Your task to perform on an android device: turn pop-ups off in chrome Image 0: 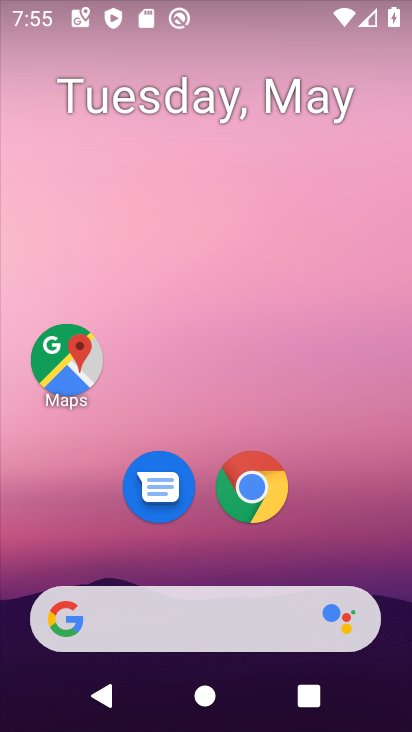
Step 0: drag from (371, 569) to (390, 271)
Your task to perform on an android device: turn pop-ups off in chrome Image 1: 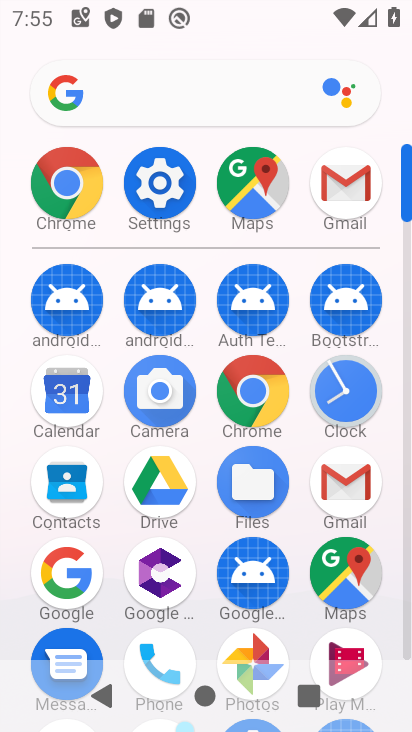
Step 1: click (270, 400)
Your task to perform on an android device: turn pop-ups off in chrome Image 2: 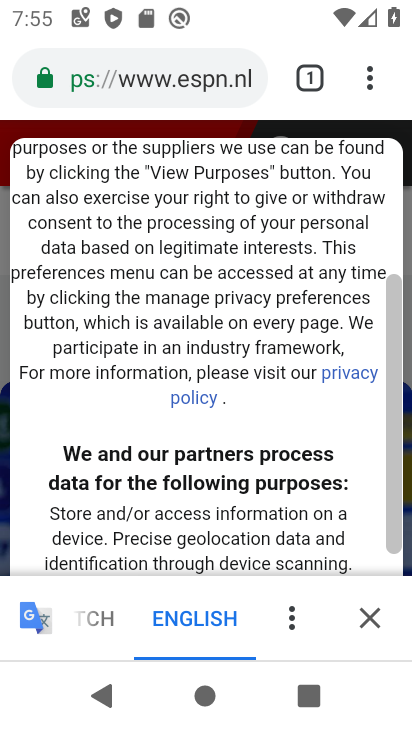
Step 2: click (370, 82)
Your task to perform on an android device: turn pop-ups off in chrome Image 3: 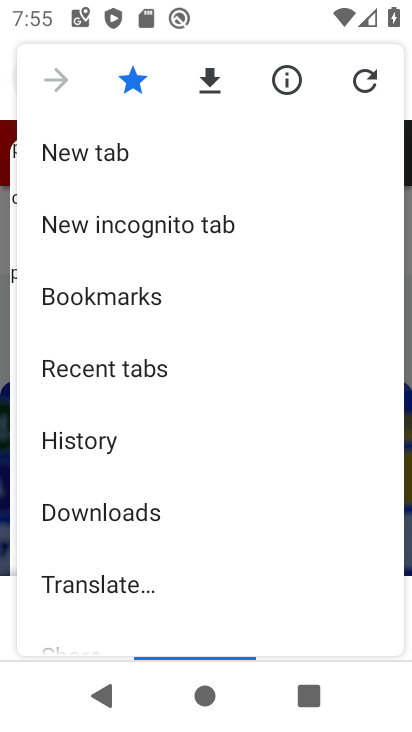
Step 3: drag from (273, 530) to (281, 450)
Your task to perform on an android device: turn pop-ups off in chrome Image 4: 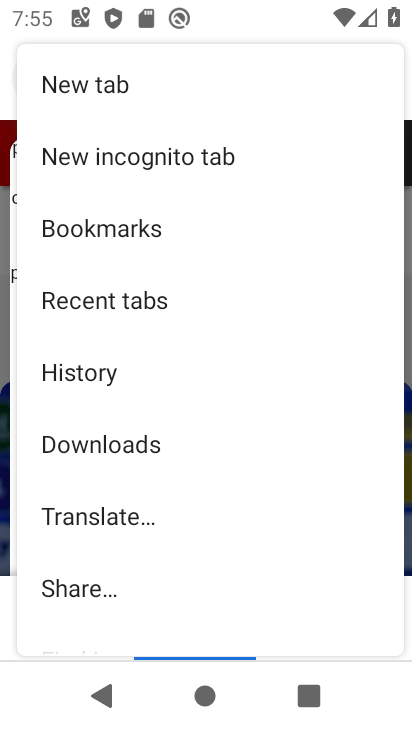
Step 4: drag from (280, 528) to (285, 467)
Your task to perform on an android device: turn pop-ups off in chrome Image 5: 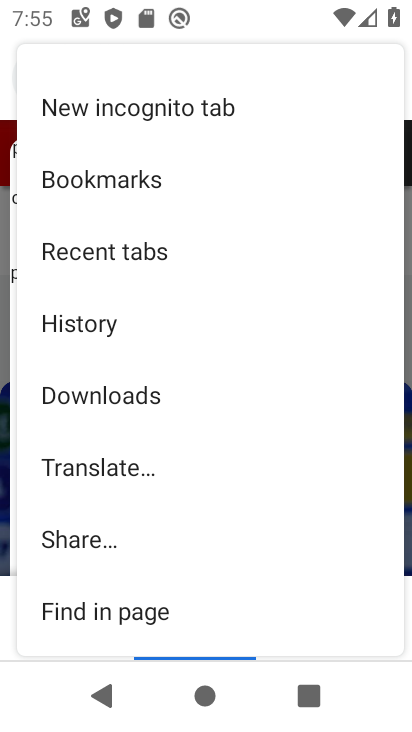
Step 5: drag from (281, 562) to (303, 464)
Your task to perform on an android device: turn pop-ups off in chrome Image 6: 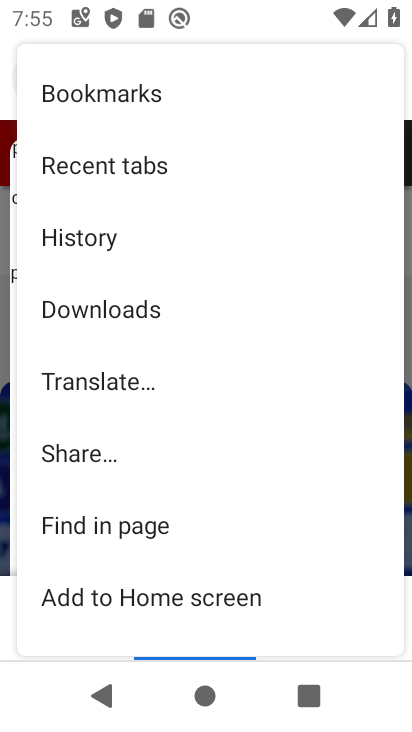
Step 6: drag from (328, 589) to (340, 475)
Your task to perform on an android device: turn pop-ups off in chrome Image 7: 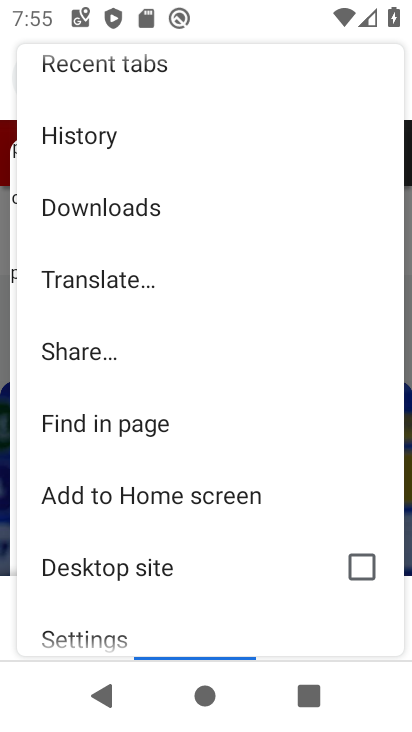
Step 7: drag from (276, 570) to (290, 379)
Your task to perform on an android device: turn pop-ups off in chrome Image 8: 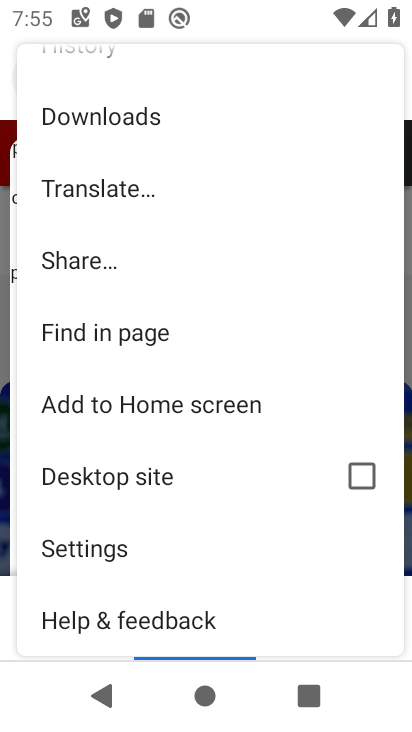
Step 8: click (170, 551)
Your task to perform on an android device: turn pop-ups off in chrome Image 9: 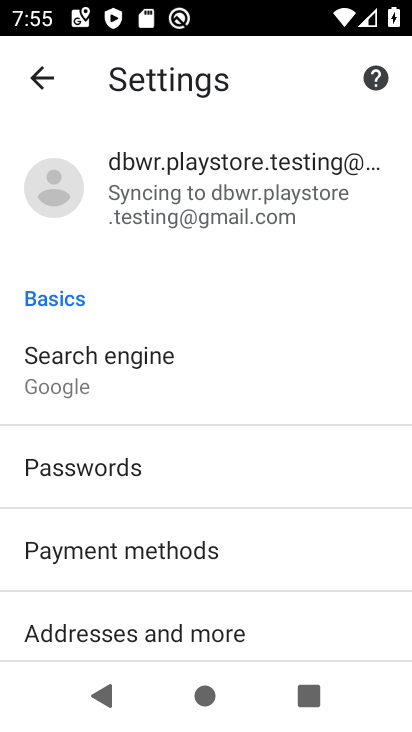
Step 9: drag from (326, 498) to (328, 417)
Your task to perform on an android device: turn pop-ups off in chrome Image 10: 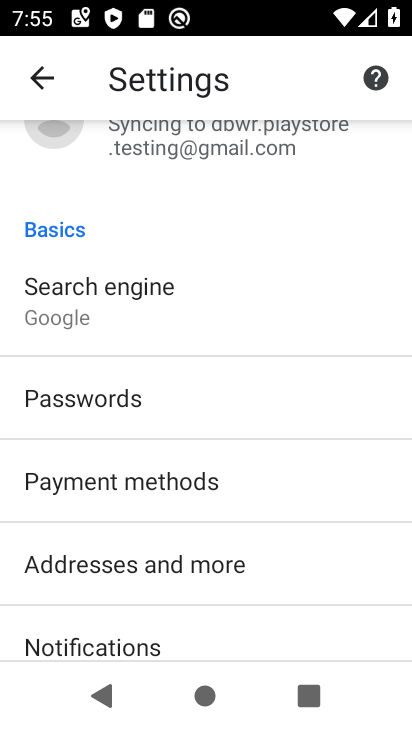
Step 10: drag from (332, 540) to (338, 432)
Your task to perform on an android device: turn pop-ups off in chrome Image 11: 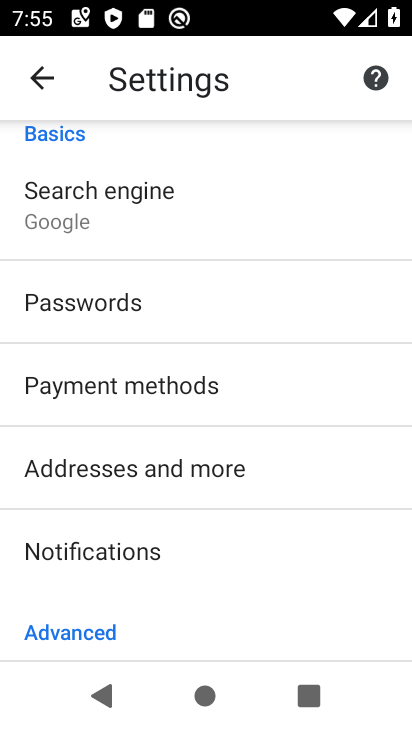
Step 11: drag from (334, 556) to (335, 444)
Your task to perform on an android device: turn pop-ups off in chrome Image 12: 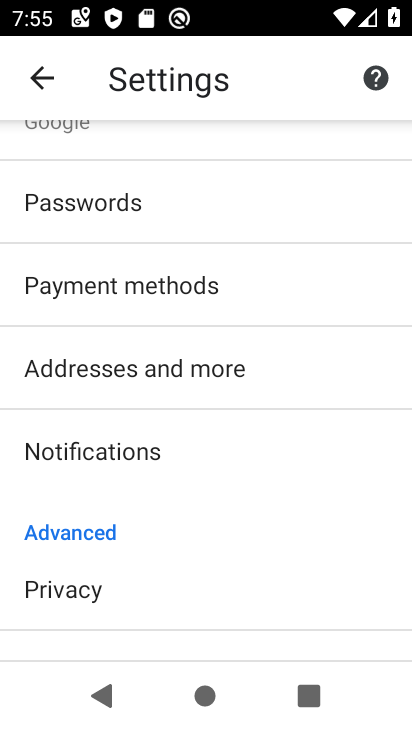
Step 12: drag from (314, 536) to (314, 404)
Your task to perform on an android device: turn pop-ups off in chrome Image 13: 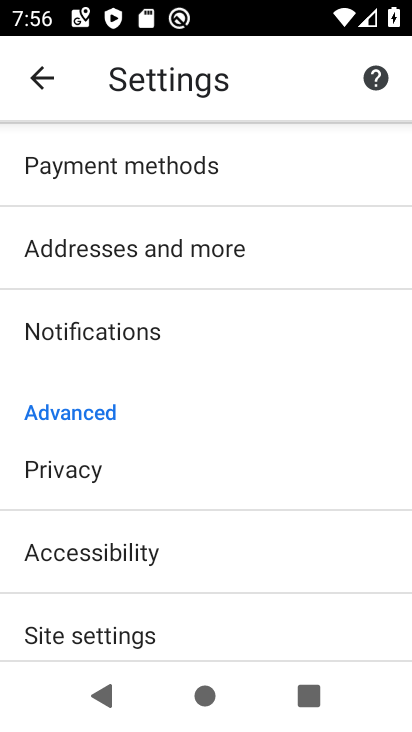
Step 13: drag from (296, 543) to (300, 426)
Your task to perform on an android device: turn pop-ups off in chrome Image 14: 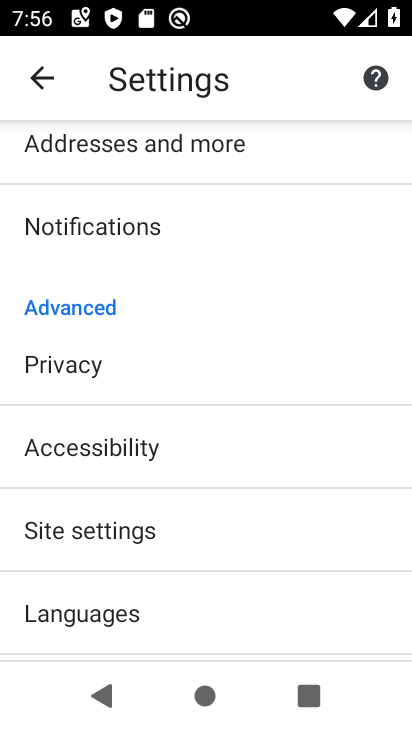
Step 14: drag from (299, 524) to (297, 410)
Your task to perform on an android device: turn pop-ups off in chrome Image 15: 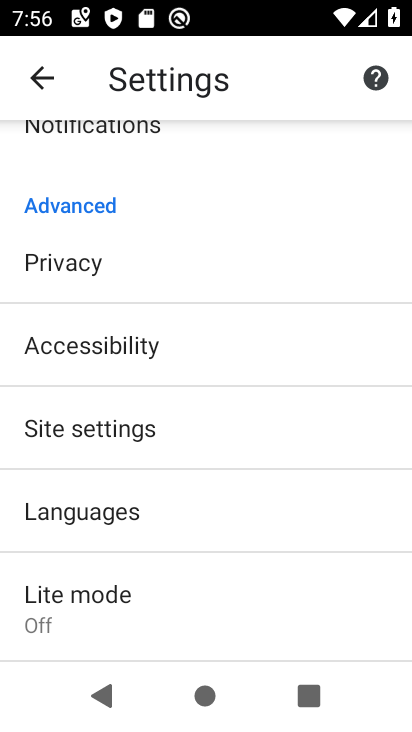
Step 15: click (290, 442)
Your task to perform on an android device: turn pop-ups off in chrome Image 16: 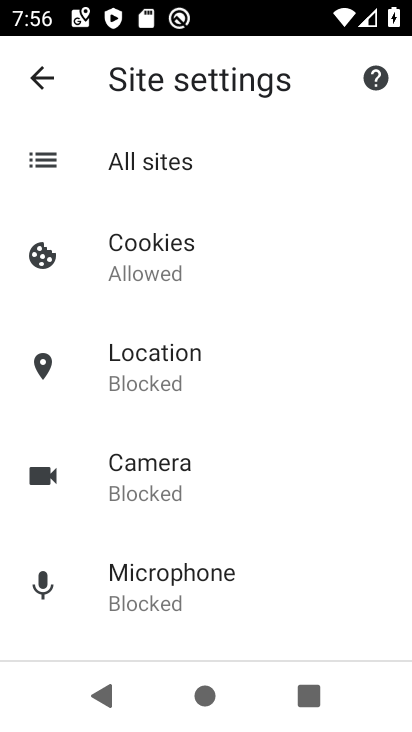
Step 16: drag from (305, 474) to (313, 378)
Your task to perform on an android device: turn pop-ups off in chrome Image 17: 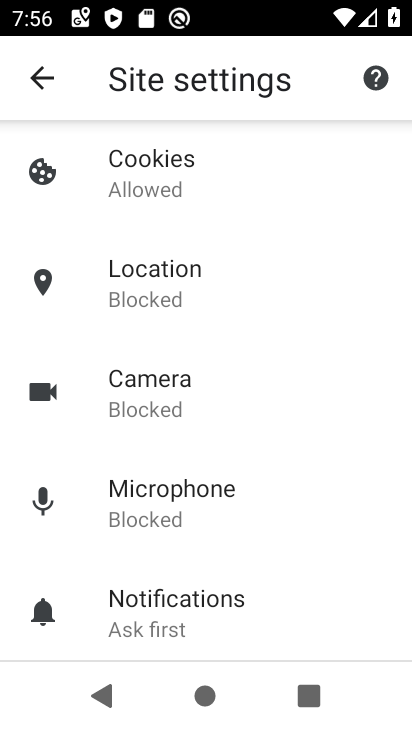
Step 17: drag from (322, 483) to (329, 340)
Your task to perform on an android device: turn pop-ups off in chrome Image 18: 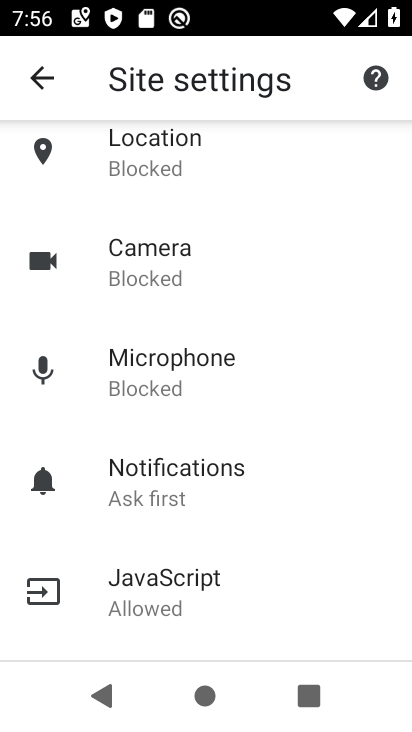
Step 18: drag from (321, 487) to (319, 313)
Your task to perform on an android device: turn pop-ups off in chrome Image 19: 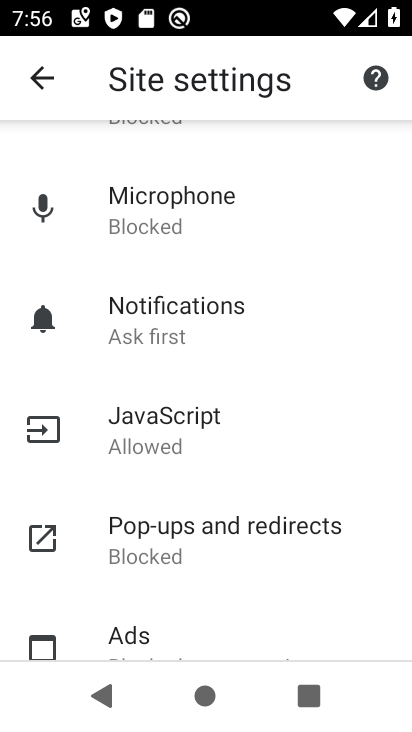
Step 19: drag from (324, 458) to (333, 309)
Your task to perform on an android device: turn pop-ups off in chrome Image 20: 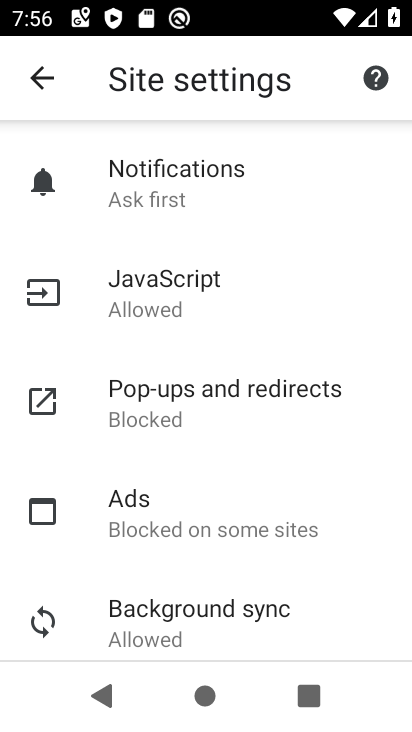
Step 20: drag from (347, 457) to (354, 353)
Your task to perform on an android device: turn pop-ups off in chrome Image 21: 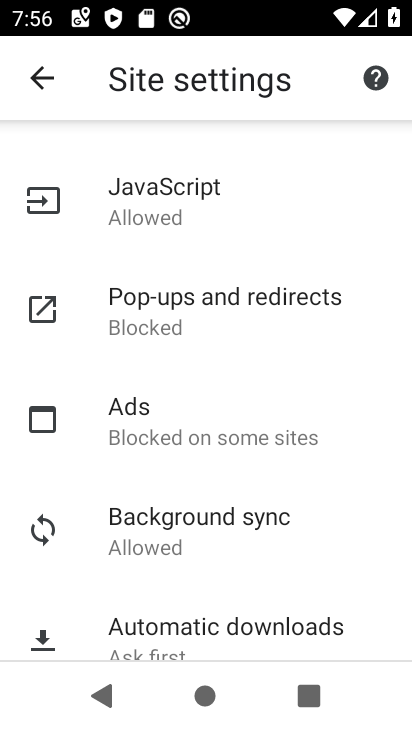
Step 21: click (295, 320)
Your task to perform on an android device: turn pop-ups off in chrome Image 22: 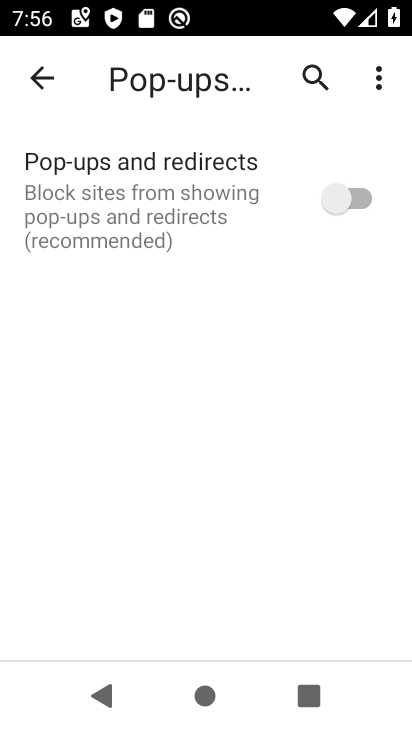
Step 22: task complete